Your task to perform on an android device: Search for pizza restaurants on Maps Image 0: 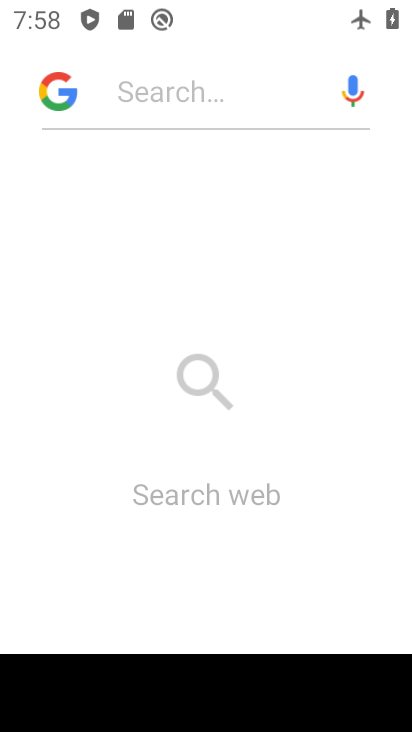
Step 0: press home button
Your task to perform on an android device: Search for pizza restaurants on Maps Image 1: 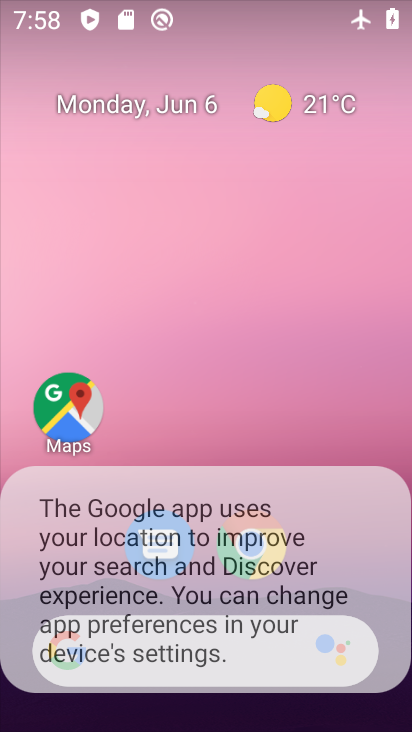
Step 1: click (321, 372)
Your task to perform on an android device: Search for pizza restaurants on Maps Image 2: 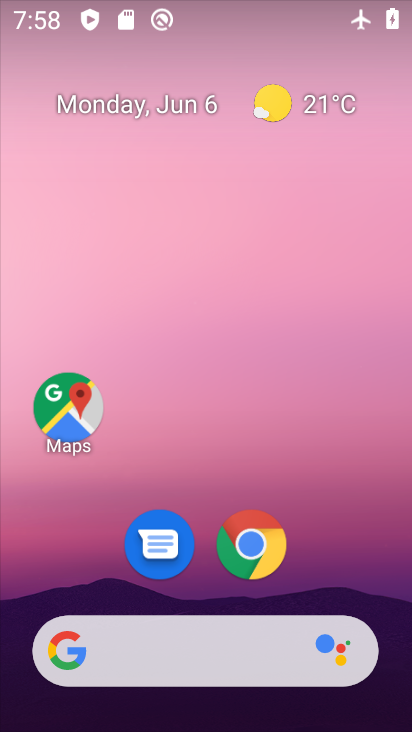
Step 2: click (46, 402)
Your task to perform on an android device: Search for pizza restaurants on Maps Image 3: 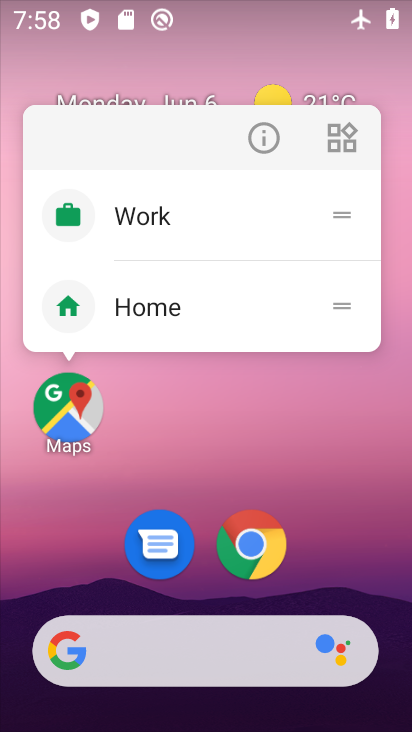
Step 3: click (49, 402)
Your task to perform on an android device: Search for pizza restaurants on Maps Image 4: 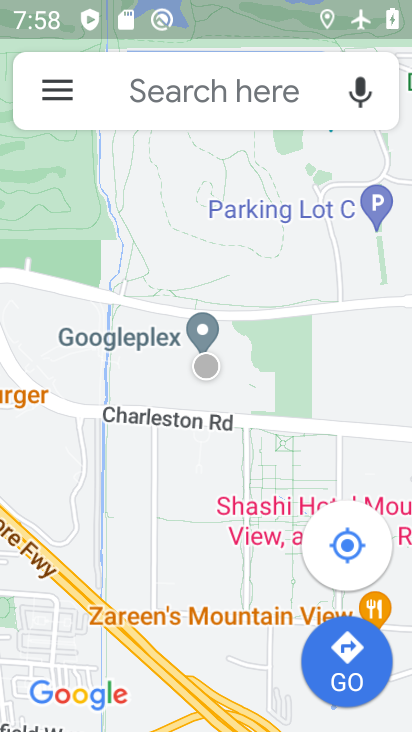
Step 4: click (180, 80)
Your task to perform on an android device: Search for pizza restaurants on Maps Image 5: 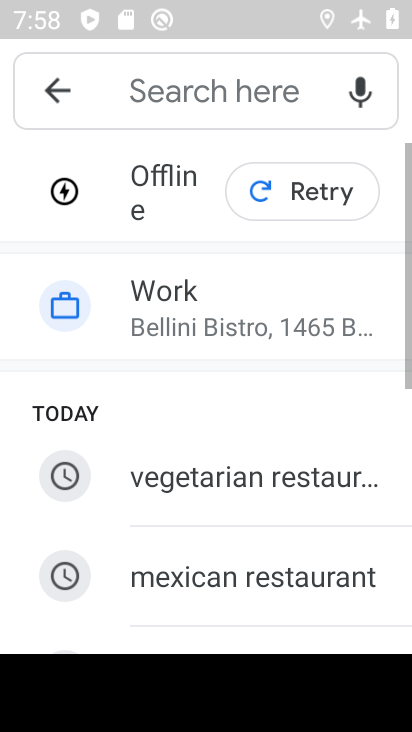
Step 5: drag from (215, 606) to (239, 308)
Your task to perform on an android device: Search for pizza restaurants on Maps Image 6: 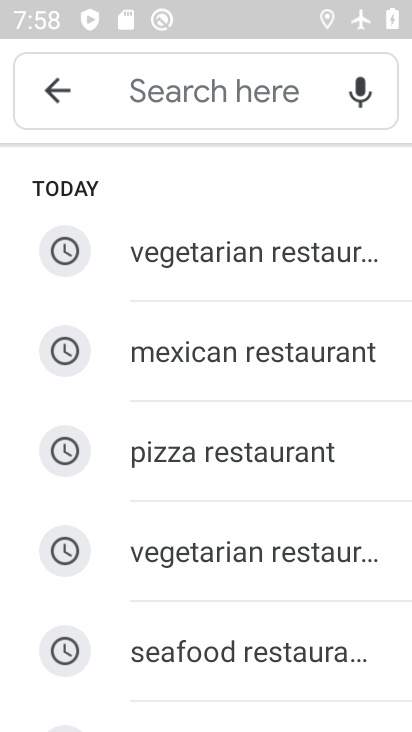
Step 6: click (207, 457)
Your task to perform on an android device: Search for pizza restaurants on Maps Image 7: 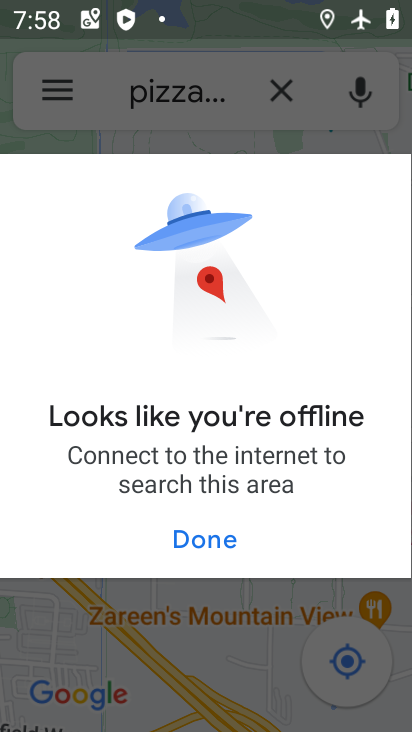
Step 7: task complete